Your task to perform on an android device: see tabs open on other devices in the chrome app Image 0: 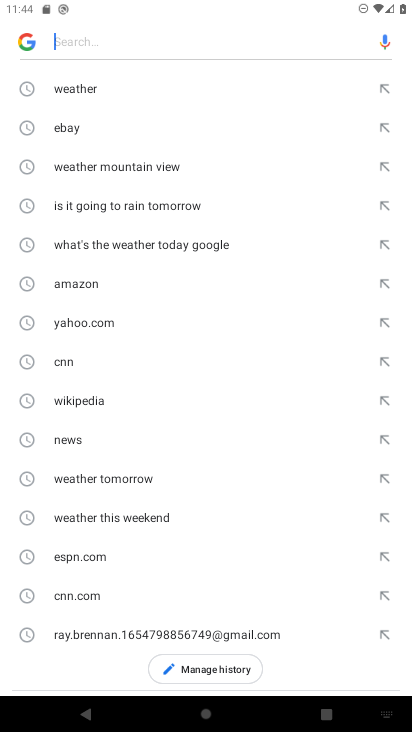
Step 0: press home button
Your task to perform on an android device: see tabs open on other devices in the chrome app Image 1: 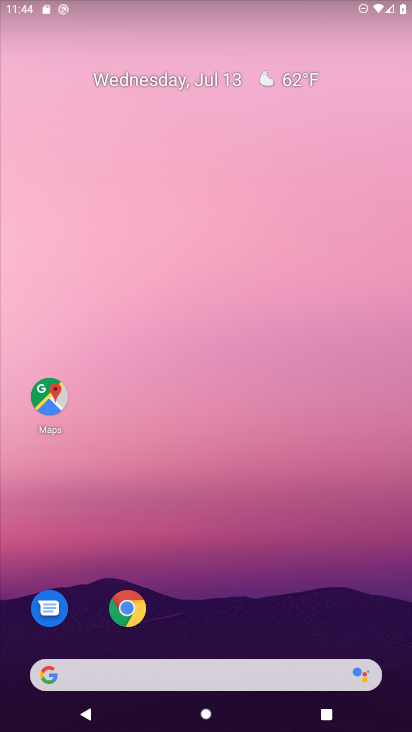
Step 1: drag from (223, 720) to (204, 218)
Your task to perform on an android device: see tabs open on other devices in the chrome app Image 2: 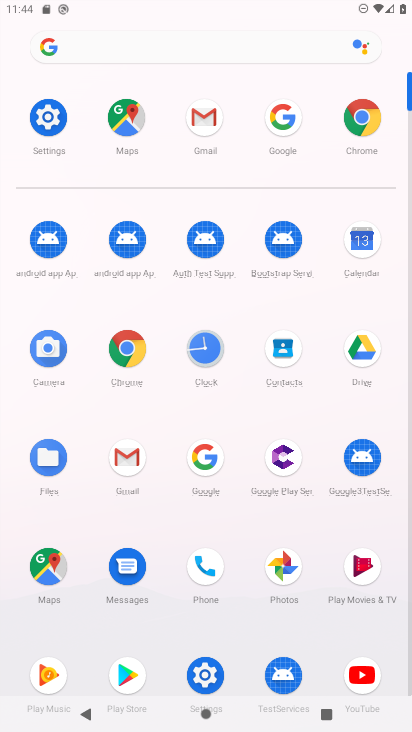
Step 2: click (123, 346)
Your task to perform on an android device: see tabs open on other devices in the chrome app Image 3: 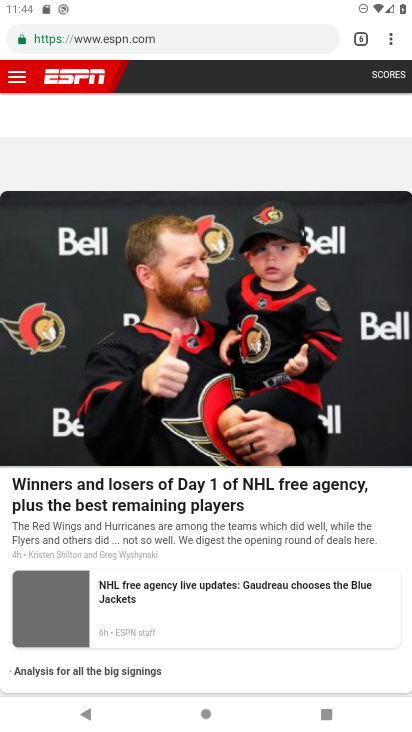
Step 3: click (392, 38)
Your task to perform on an android device: see tabs open on other devices in the chrome app Image 4: 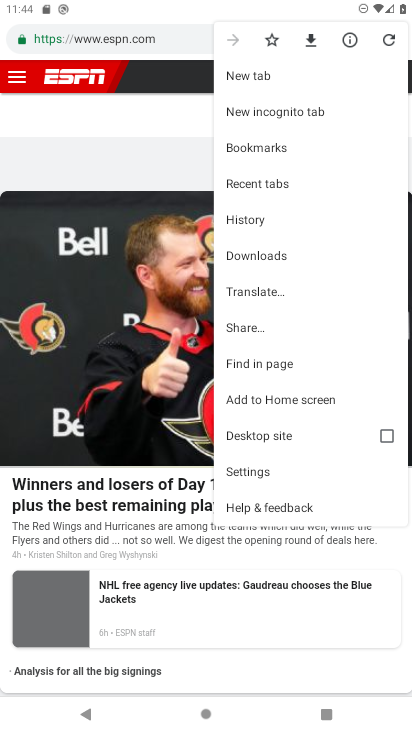
Step 4: click (256, 182)
Your task to perform on an android device: see tabs open on other devices in the chrome app Image 5: 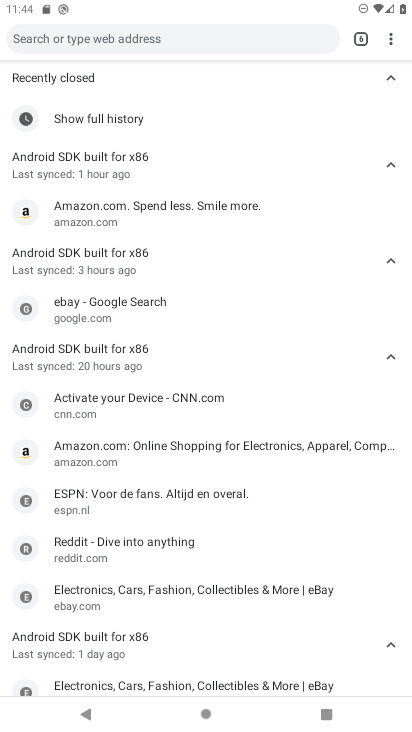
Step 5: task complete